Your task to perform on an android device: Open the stopwatch Image 0: 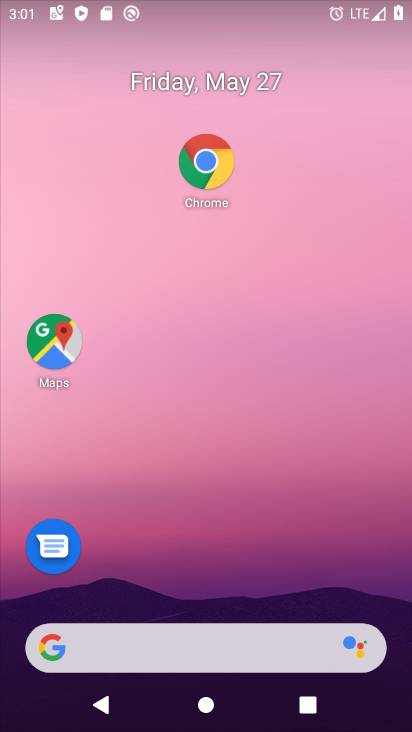
Step 0: drag from (213, 585) to (266, 208)
Your task to perform on an android device: Open the stopwatch Image 1: 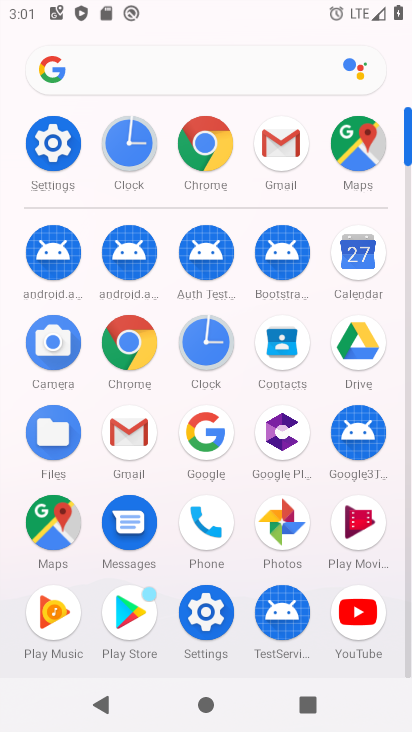
Step 1: click (206, 349)
Your task to perform on an android device: Open the stopwatch Image 2: 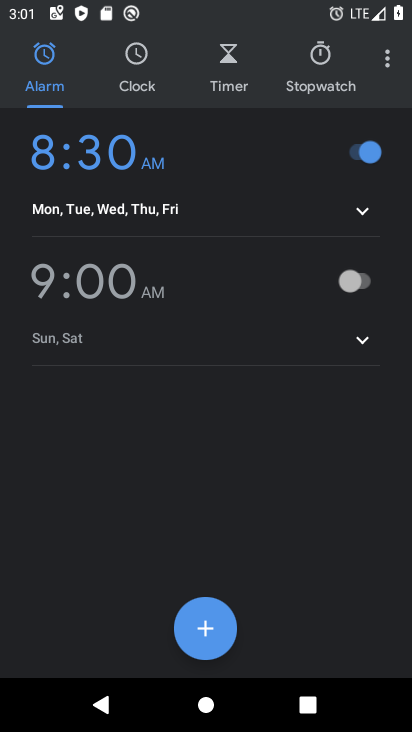
Step 2: click (332, 63)
Your task to perform on an android device: Open the stopwatch Image 3: 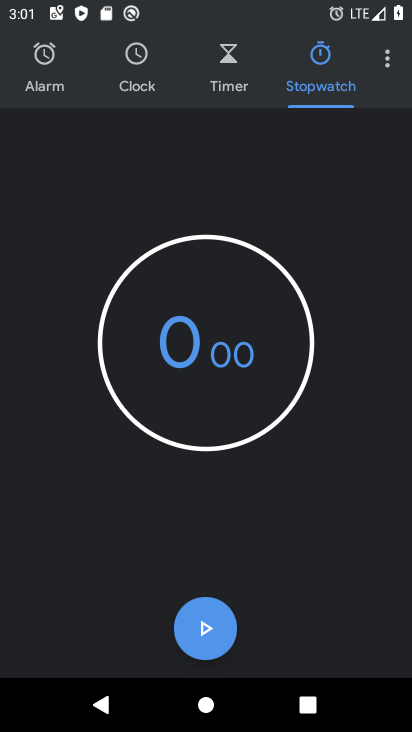
Step 3: task complete